Your task to perform on an android device: turn on bluetooth scan Image 0: 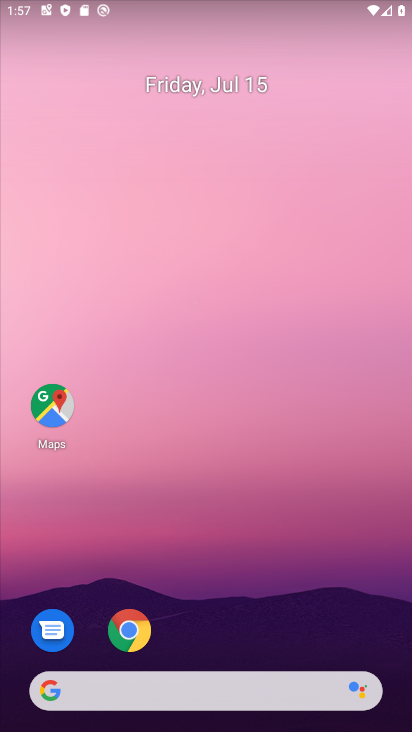
Step 0: click (273, 577)
Your task to perform on an android device: turn on bluetooth scan Image 1: 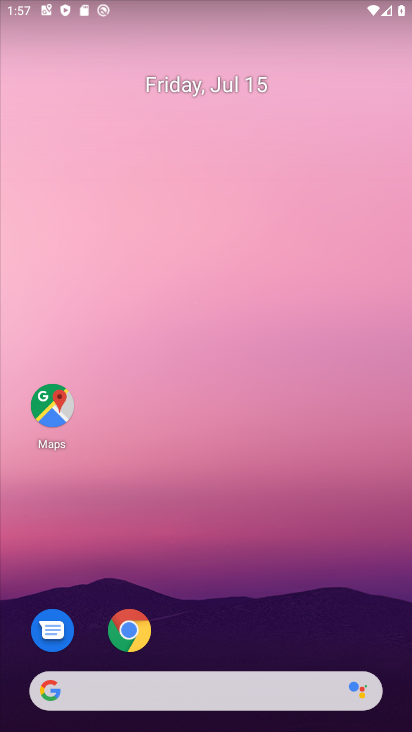
Step 1: drag from (273, 577) to (217, 24)
Your task to perform on an android device: turn on bluetooth scan Image 2: 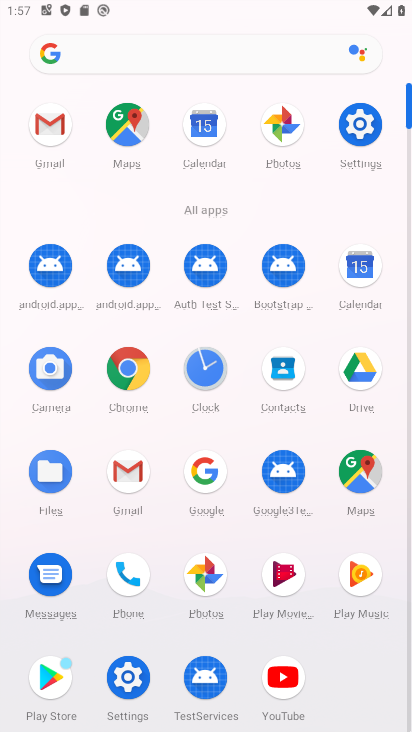
Step 2: click (366, 120)
Your task to perform on an android device: turn on bluetooth scan Image 3: 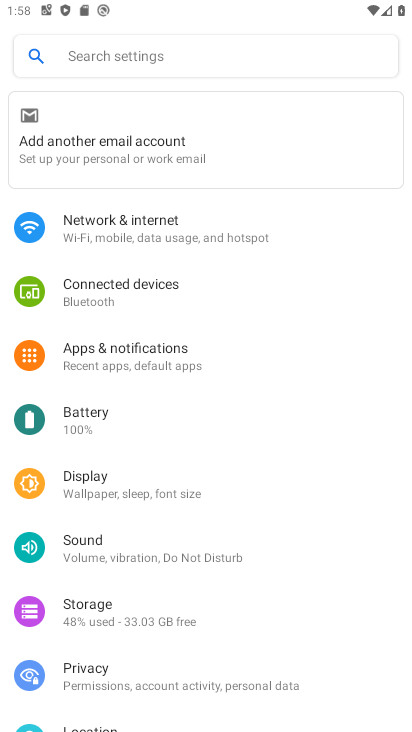
Step 3: drag from (250, 566) to (209, 196)
Your task to perform on an android device: turn on bluetooth scan Image 4: 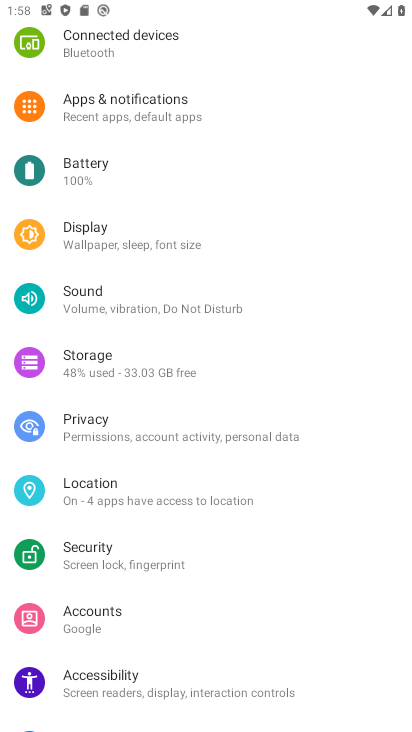
Step 4: click (97, 482)
Your task to perform on an android device: turn on bluetooth scan Image 5: 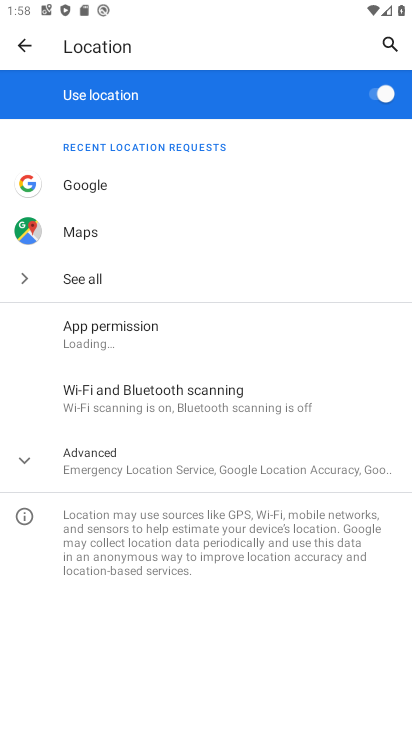
Step 5: click (120, 393)
Your task to perform on an android device: turn on bluetooth scan Image 6: 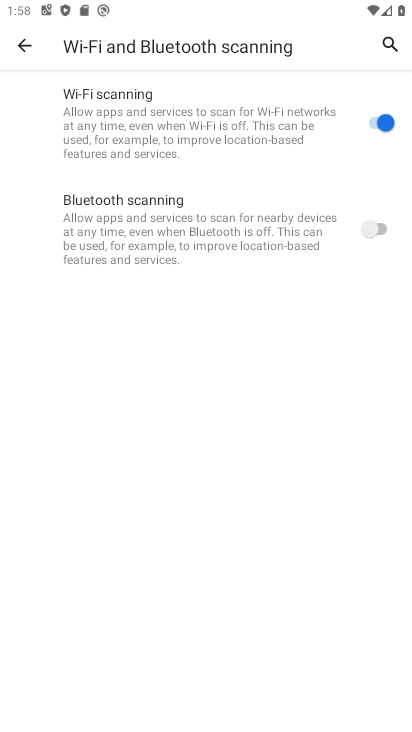
Step 6: click (372, 229)
Your task to perform on an android device: turn on bluetooth scan Image 7: 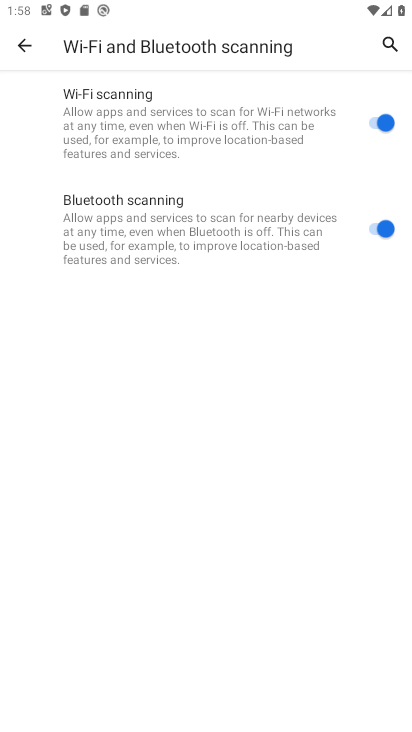
Step 7: task complete